Your task to perform on an android device: open app "Yahoo Mail" Image 0: 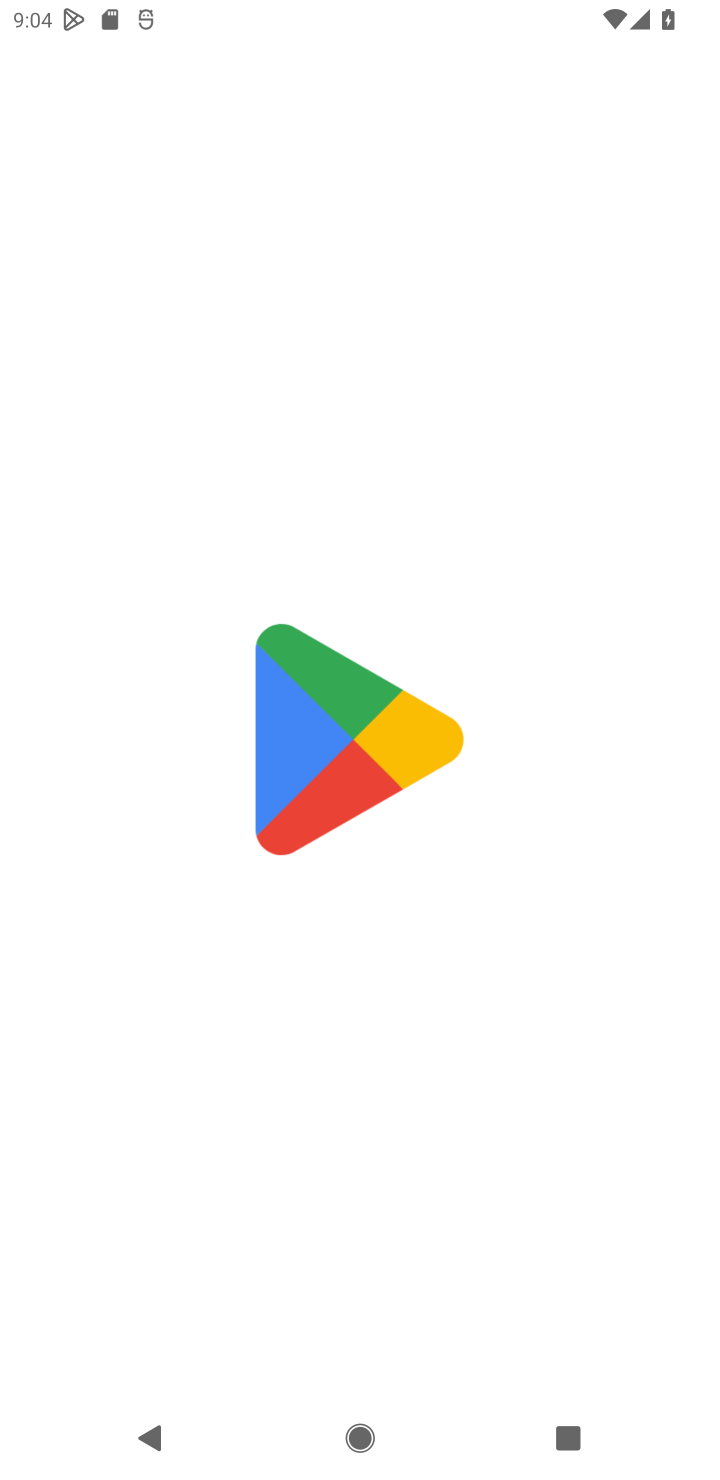
Step 0: press home button
Your task to perform on an android device: open app "Yahoo Mail" Image 1: 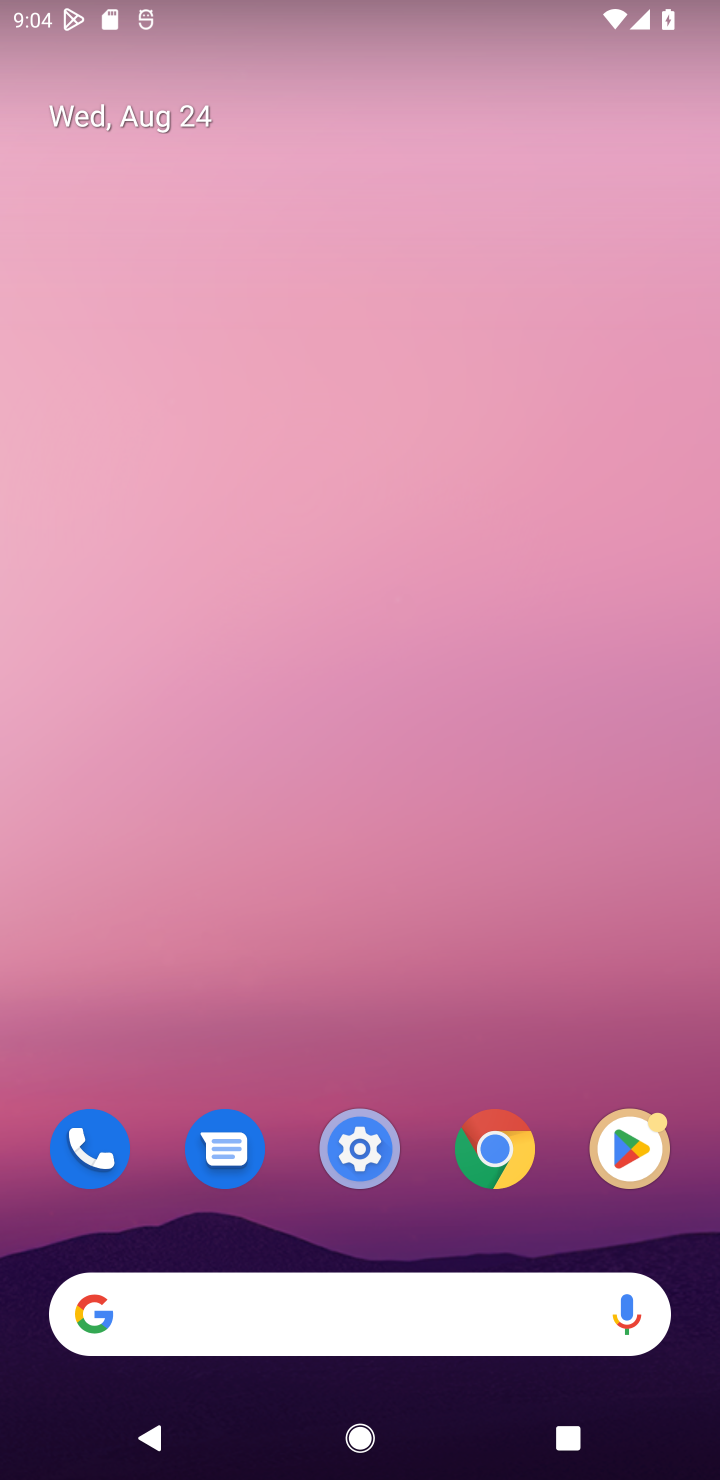
Step 1: click (489, 12)
Your task to perform on an android device: open app "Yahoo Mail" Image 2: 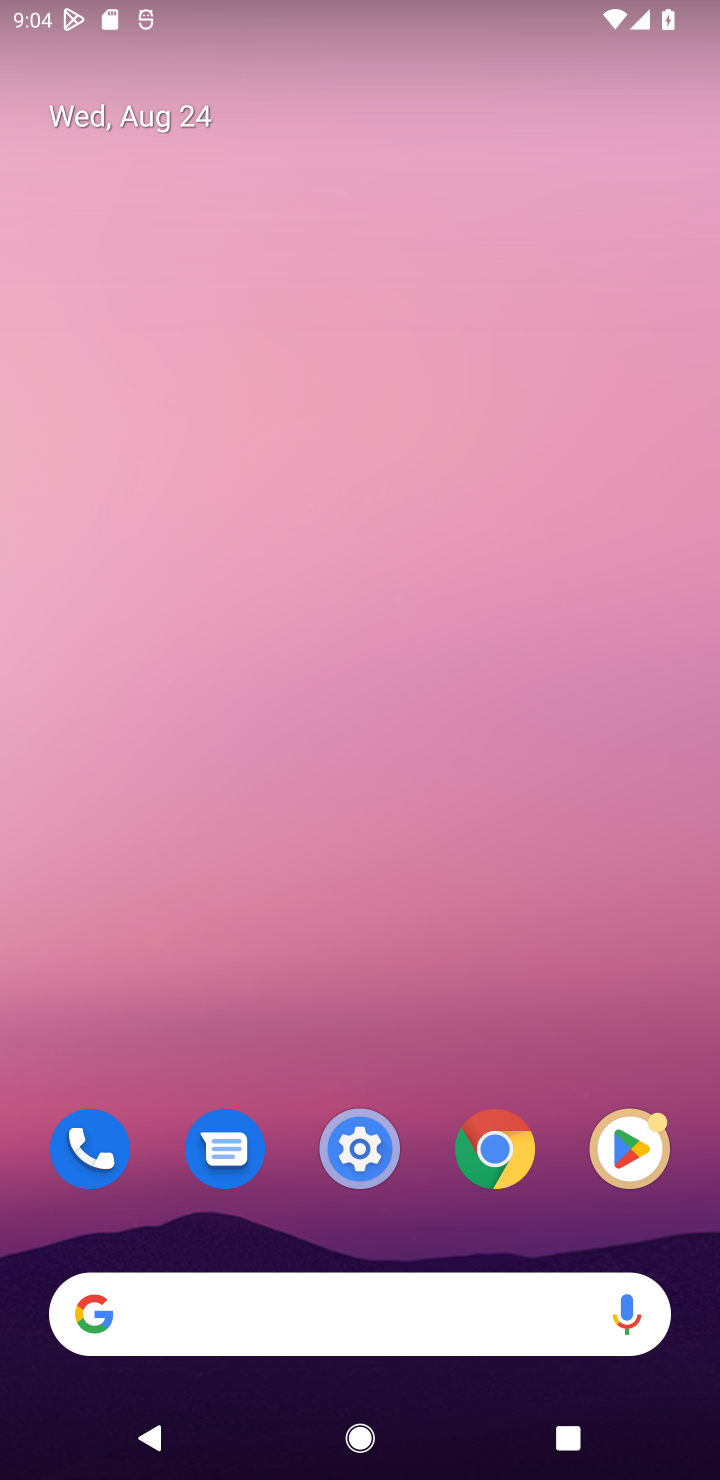
Step 2: click (505, 9)
Your task to perform on an android device: open app "Yahoo Mail" Image 3: 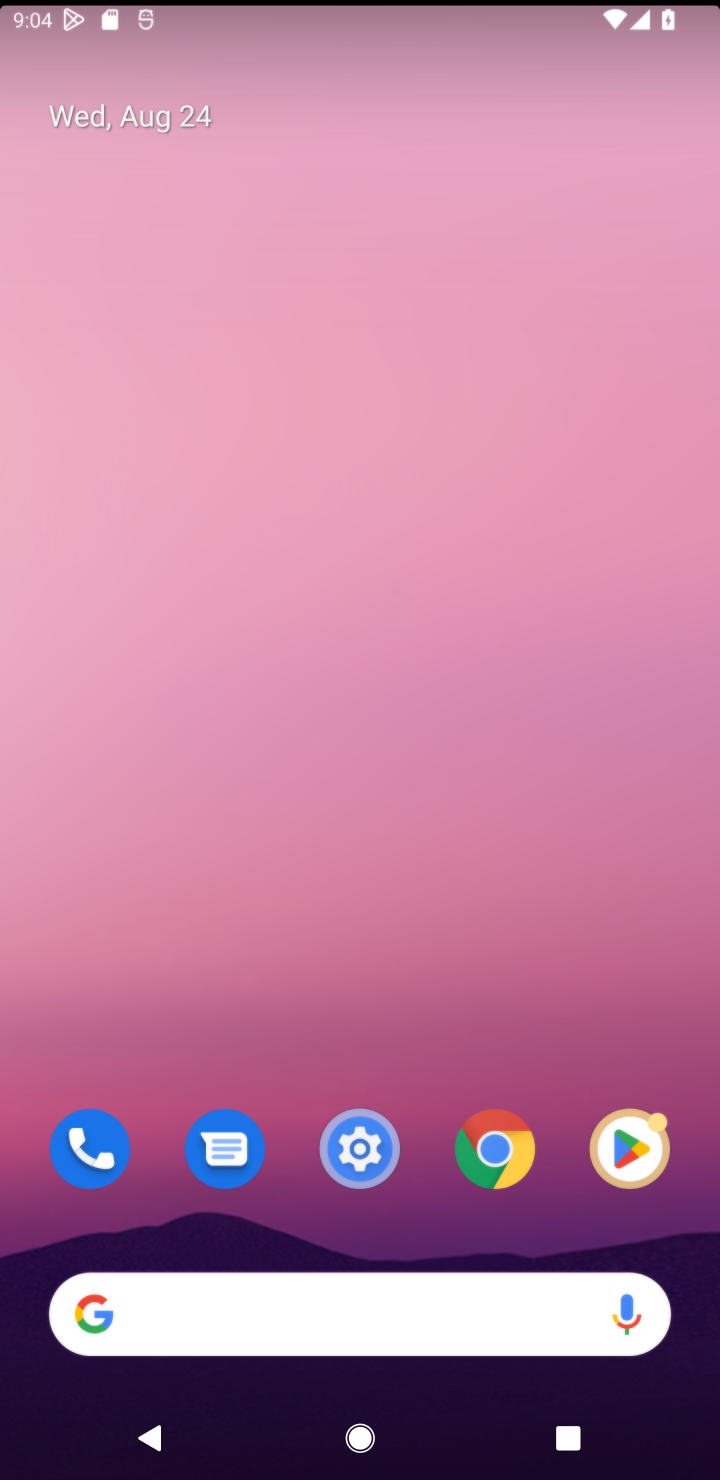
Step 3: drag from (333, 782) to (484, 35)
Your task to perform on an android device: open app "Yahoo Mail" Image 4: 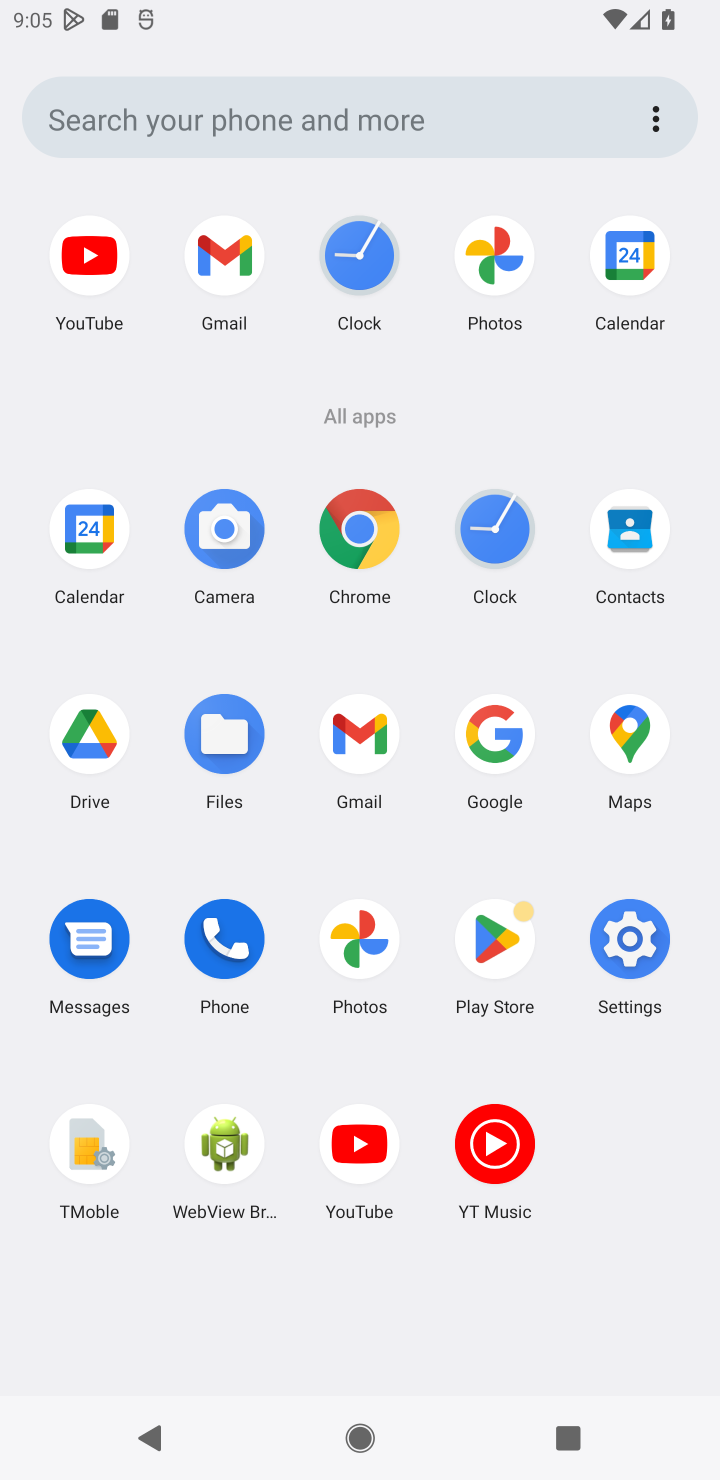
Step 4: click (474, 943)
Your task to perform on an android device: open app "Yahoo Mail" Image 5: 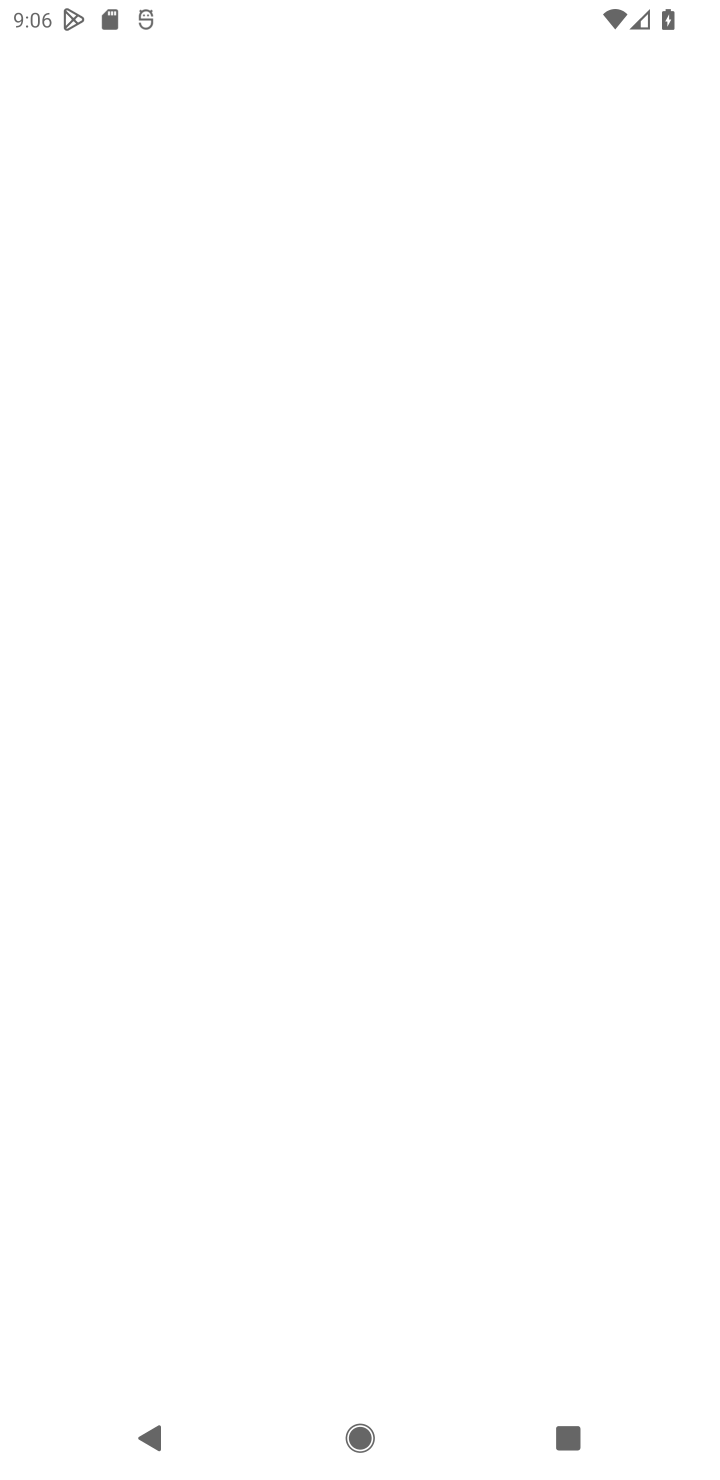
Step 5: type "Yahoo Mail"
Your task to perform on an android device: open app "Yahoo Mail" Image 6: 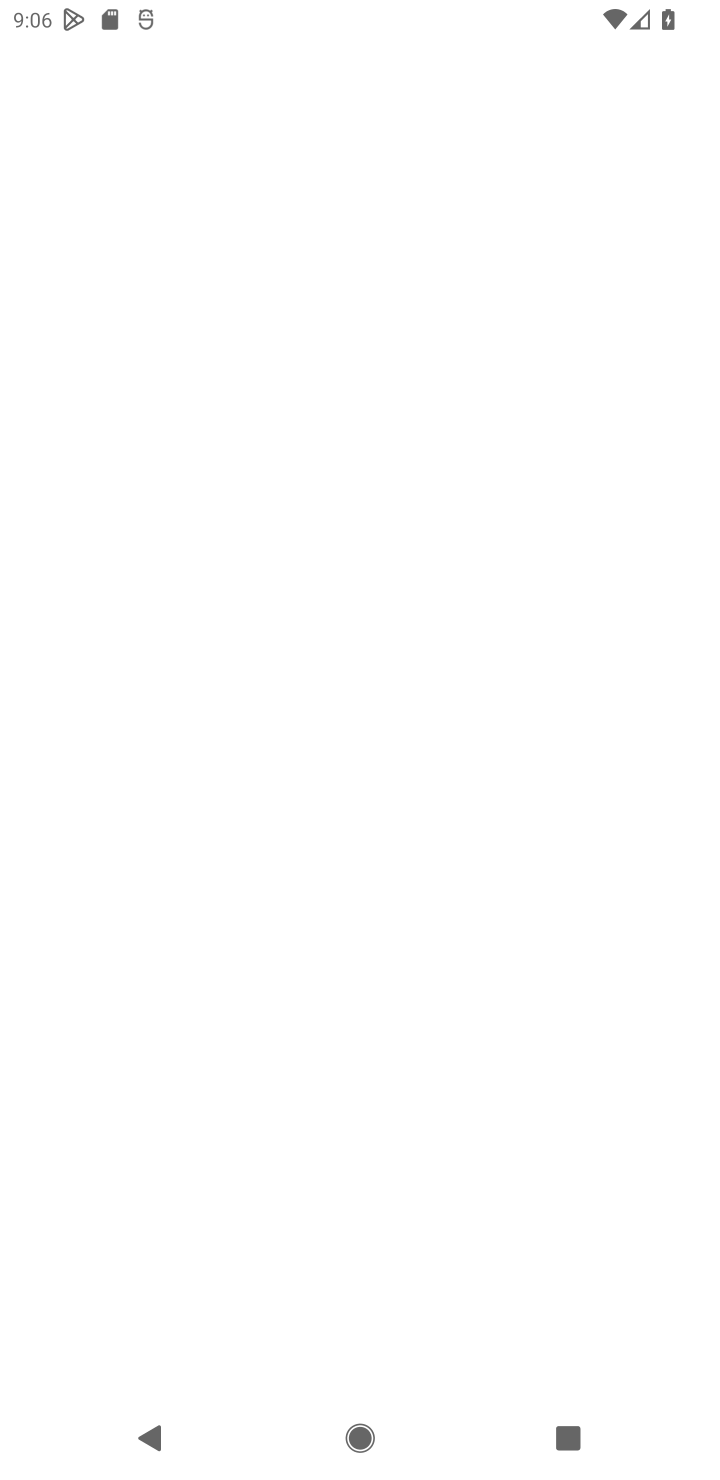
Step 6: press enter
Your task to perform on an android device: open app "Yahoo Mail" Image 7: 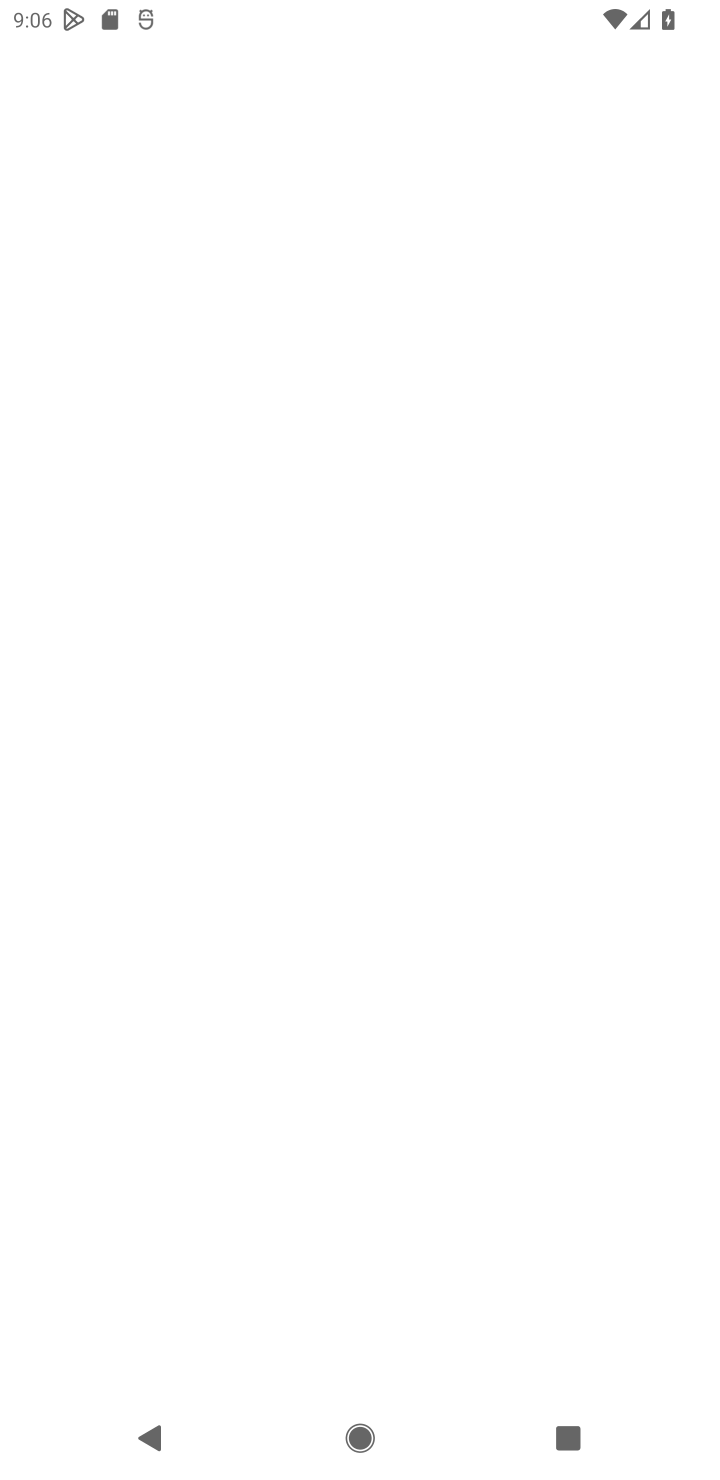
Step 7: task complete